Your task to perform on an android device: turn notification dots off Image 0: 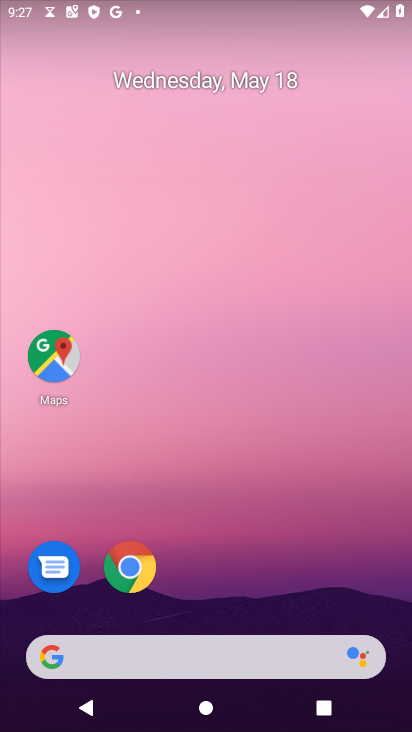
Step 0: drag from (242, 653) to (265, 175)
Your task to perform on an android device: turn notification dots off Image 1: 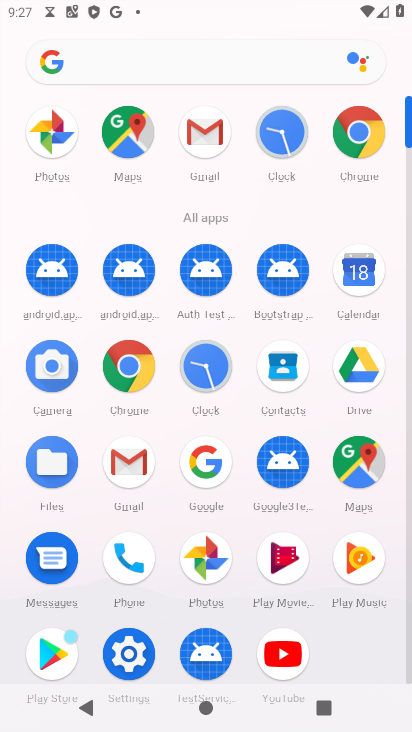
Step 1: click (126, 658)
Your task to perform on an android device: turn notification dots off Image 2: 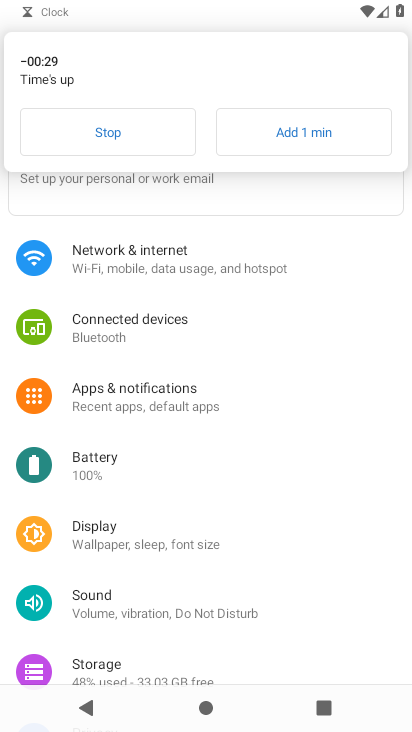
Step 2: click (163, 405)
Your task to perform on an android device: turn notification dots off Image 3: 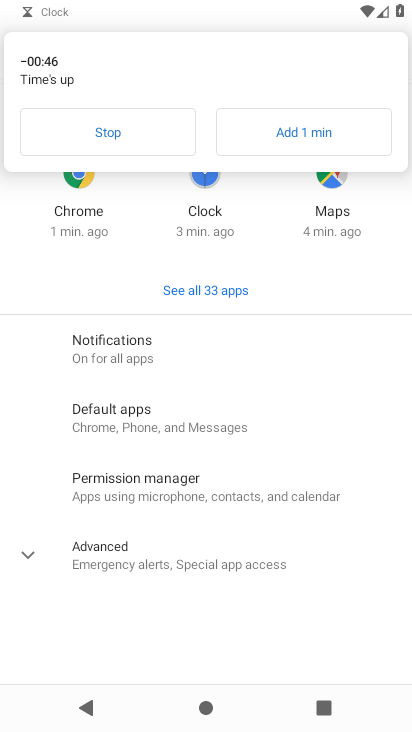
Step 3: click (143, 567)
Your task to perform on an android device: turn notification dots off Image 4: 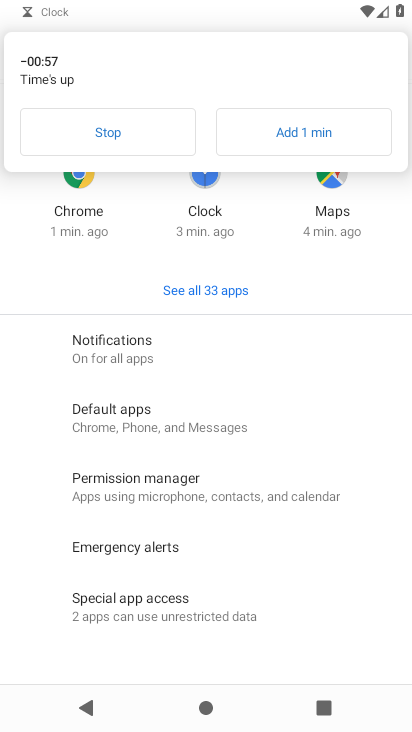
Step 4: click (124, 347)
Your task to perform on an android device: turn notification dots off Image 5: 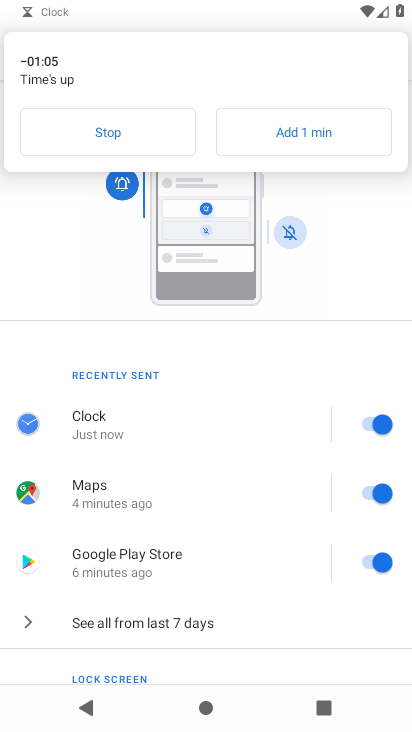
Step 5: drag from (151, 647) to (147, 160)
Your task to perform on an android device: turn notification dots off Image 6: 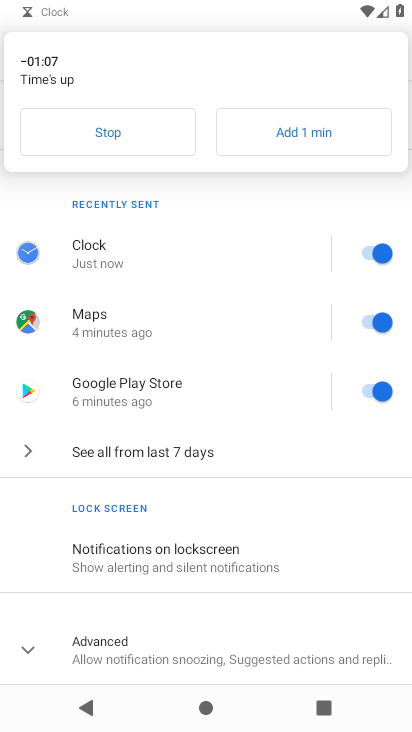
Step 6: click (158, 641)
Your task to perform on an android device: turn notification dots off Image 7: 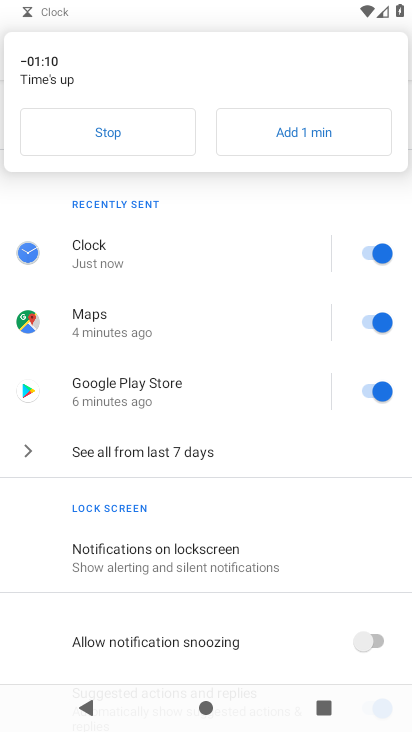
Step 7: drag from (205, 596) to (214, 5)
Your task to perform on an android device: turn notification dots off Image 8: 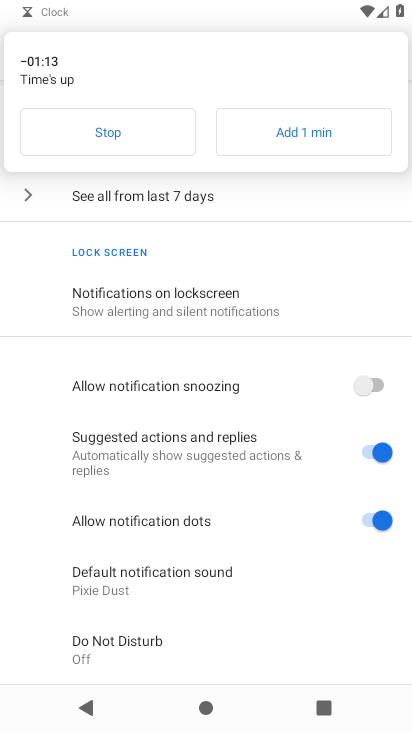
Step 8: click (380, 525)
Your task to perform on an android device: turn notification dots off Image 9: 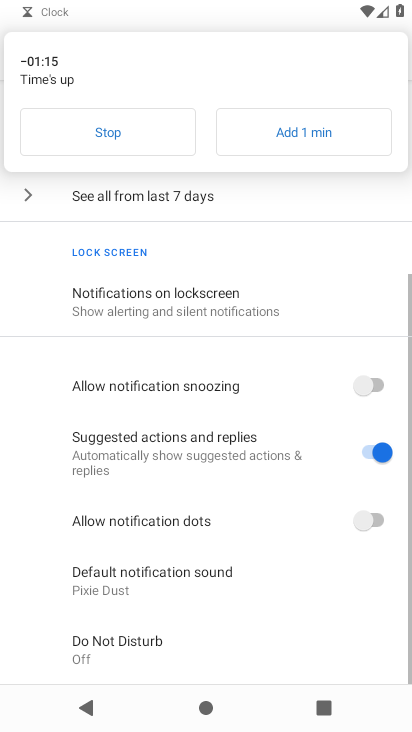
Step 9: task complete